Your task to perform on an android device: Open Youtube and go to the subscriptions tab Image 0: 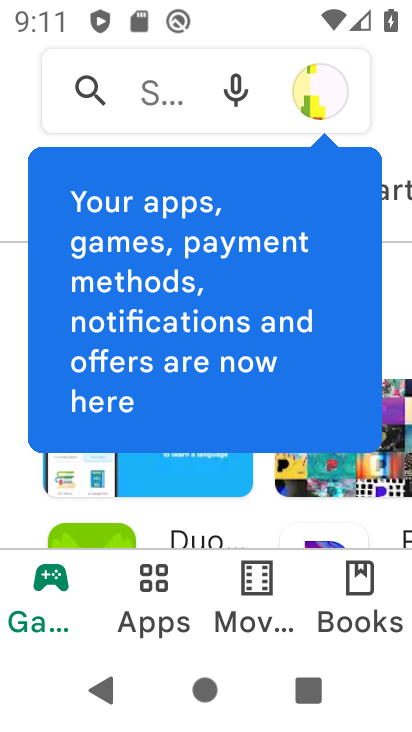
Step 0: press back button
Your task to perform on an android device: Open Youtube and go to the subscriptions tab Image 1: 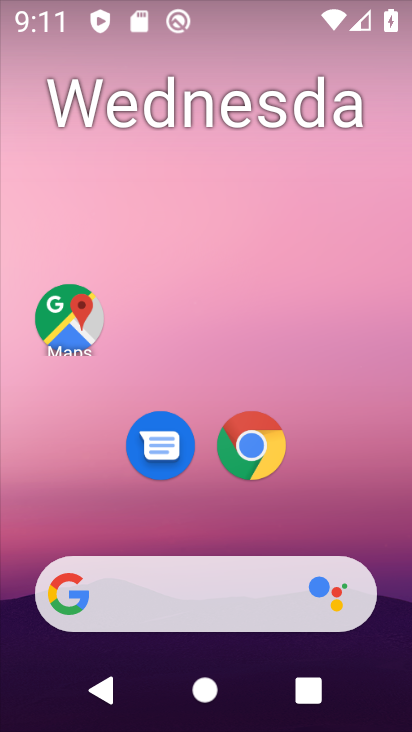
Step 1: drag from (194, 486) to (259, 89)
Your task to perform on an android device: Open Youtube and go to the subscriptions tab Image 2: 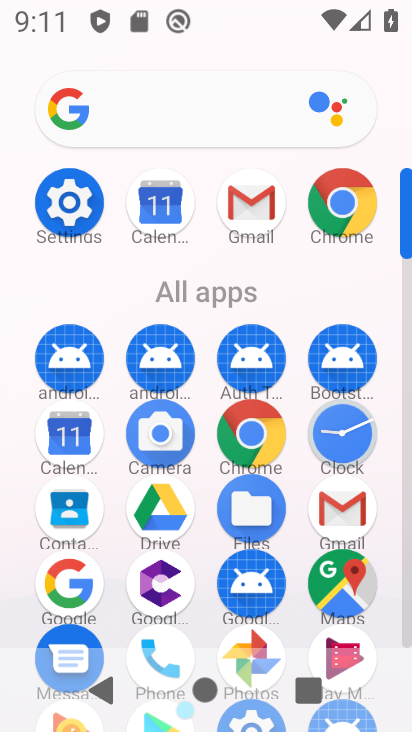
Step 2: drag from (217, 538) to (271, 110)
Your task to perform on an android device: Open Youtube and go to the subscriptions tab Image 3: 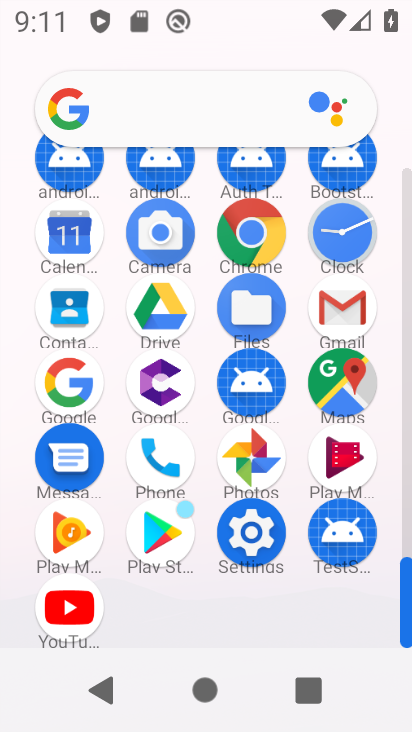
Step 3: click (54, 620)
Your task to perform on an android device: Open Youtube and go to the subscriptions tab Image 4: 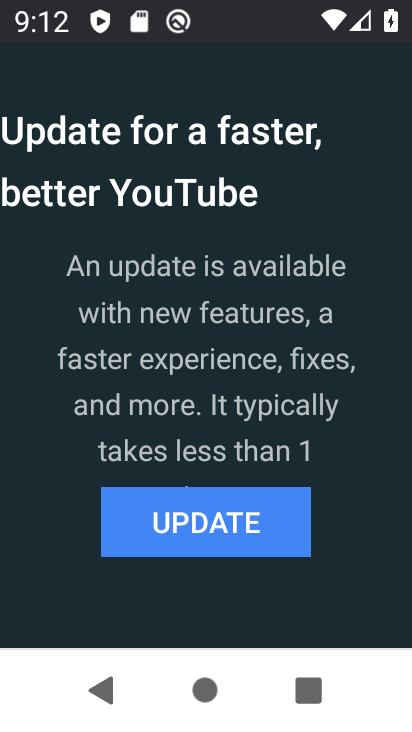
Step 4: click (229, 525)
Your task to perform on an android device: Open Youtube and go to the subscriptions tab Image 5: 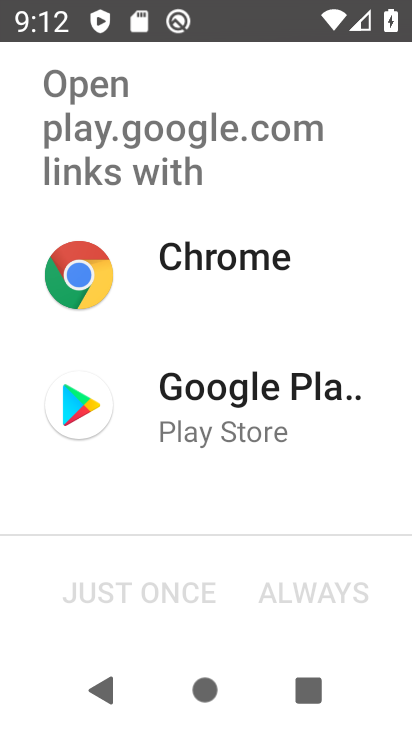
Step 5: click (212, 430)
Your task to perform on an android device: Open Youtube and go to the subscriptions tab Image 6: 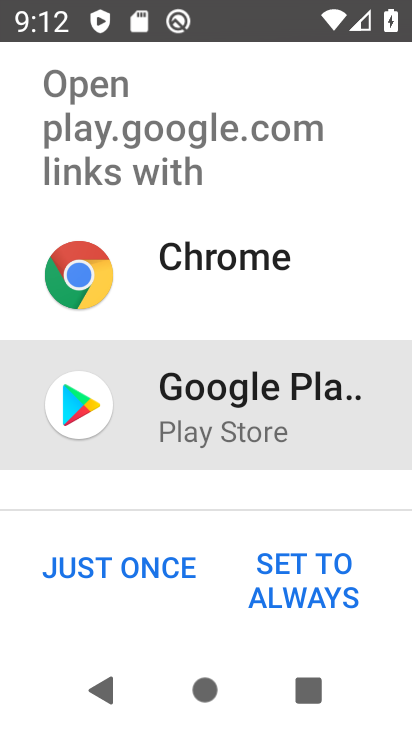
Step 6: click (148, 555)
Your task to perform on an android device: Open Youtube and go to the subscriptions tab Image 7: 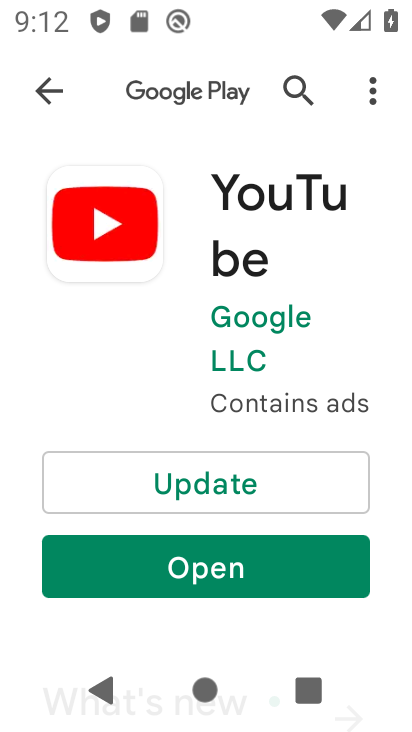
Step 7: click (201, 491)
Your task to perform on an android device: Open Youtube and go to the subscriptions tab Image 8: 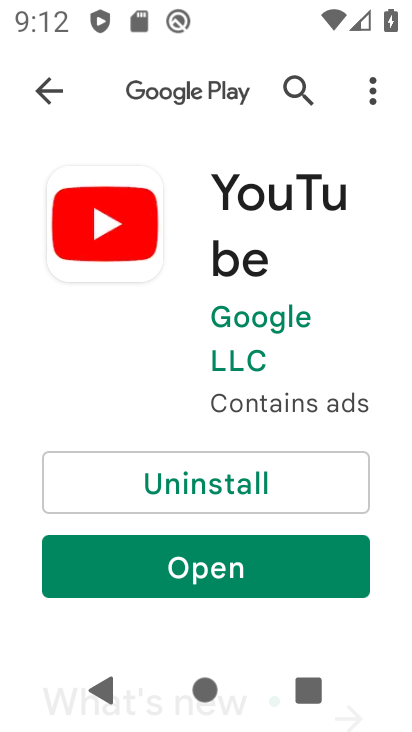
Step 8: click (191, 562)
Your task to perform on an android device: Open Youtube and go to the subscriptions tab Image 9: 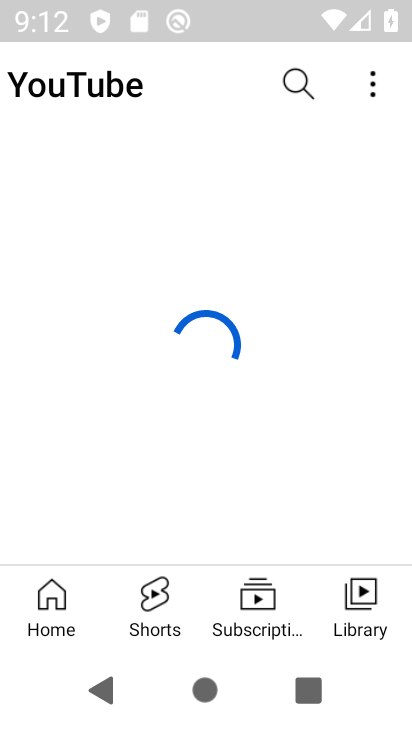
Step 9: click (253, 601)
Your task to perform on an android device: Open Youtube and go to the subscriptions tab Image 10: 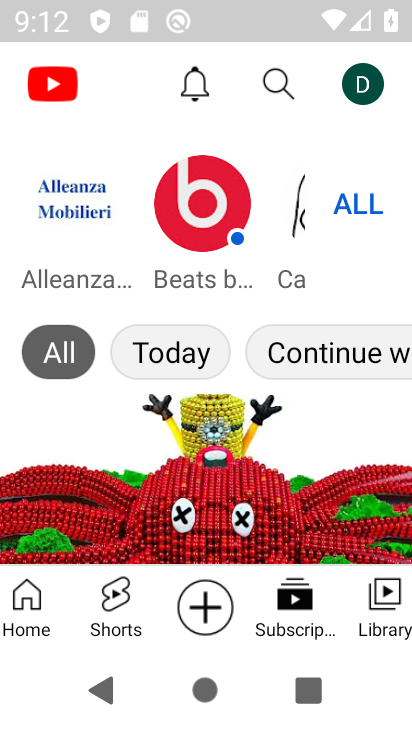
Step 10: click (284, 602)
Your task to perform on an android device: Open Youtube and go to the subscriptions tab Image 11: 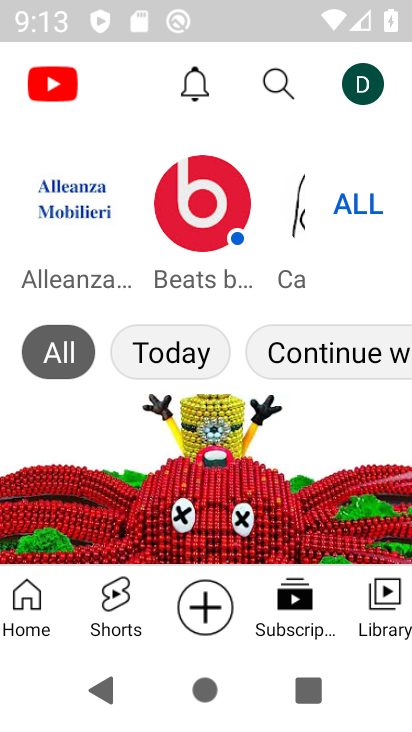
Step 11: task complete